Your task to perform on an android device: Open Chrome and go to settings Image 0: 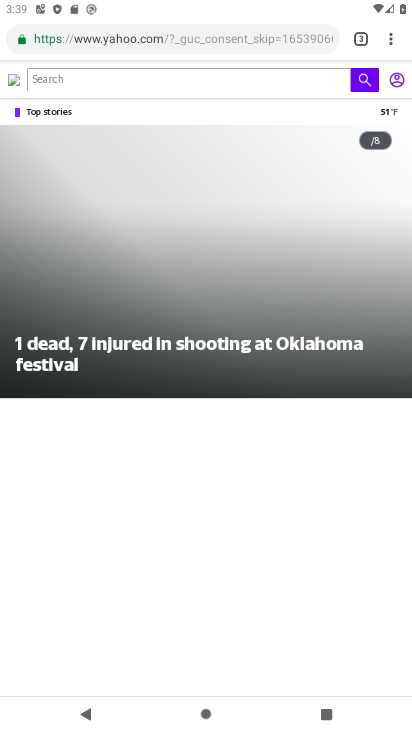
Step 0: press home button
Your task to perform on an android device: Open Chrome and go to settings Image 1: 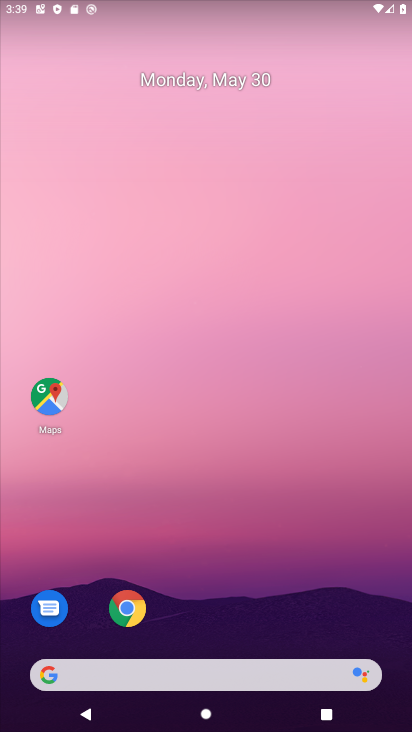
Step 1: click (127, 599)
Your task to perform on an android device: Open Chrome and go to settings Image 2: 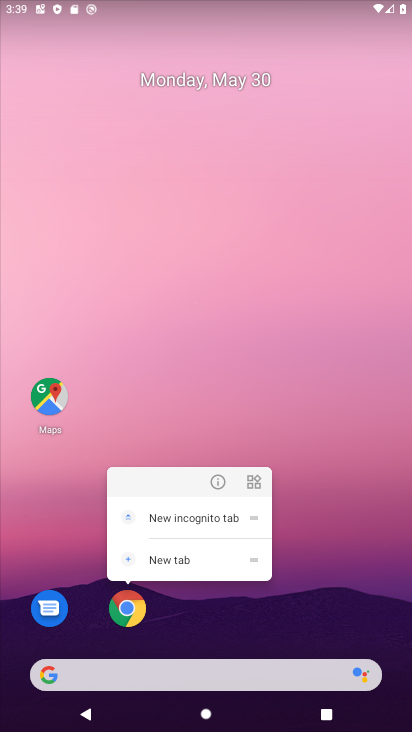
Step 2: click (132, 637)
Your task to perform on an android device: Open Chrome and go to settings Image 3: 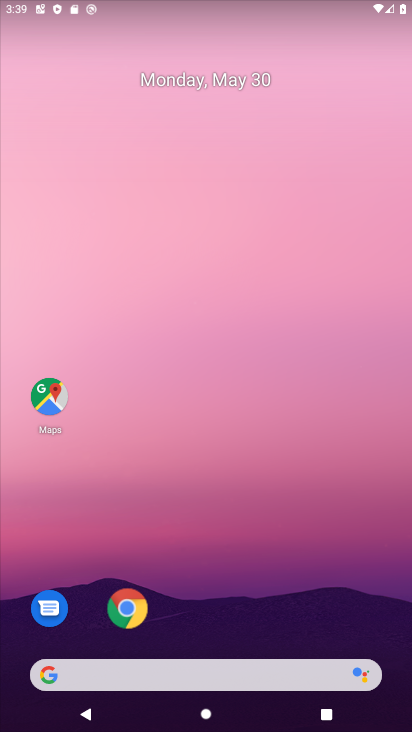
Step 3: click (115, 611)
Your task to perform on an android device: Open Chrome and go to settings Image 4: 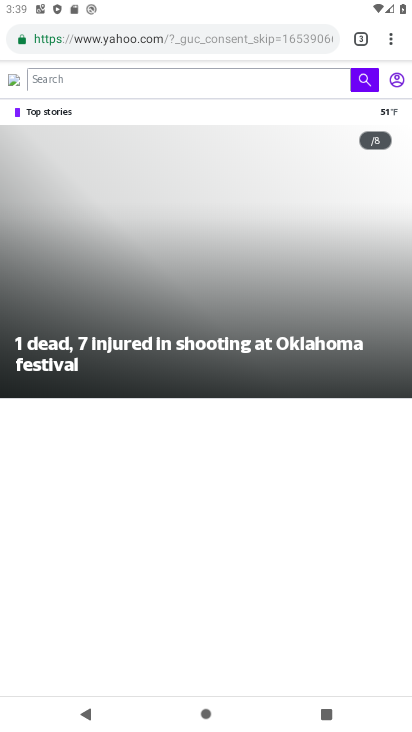
Step 4: click (395, 34)
Your task to perform on an android device: Open Chrome and go to settings Image 5: 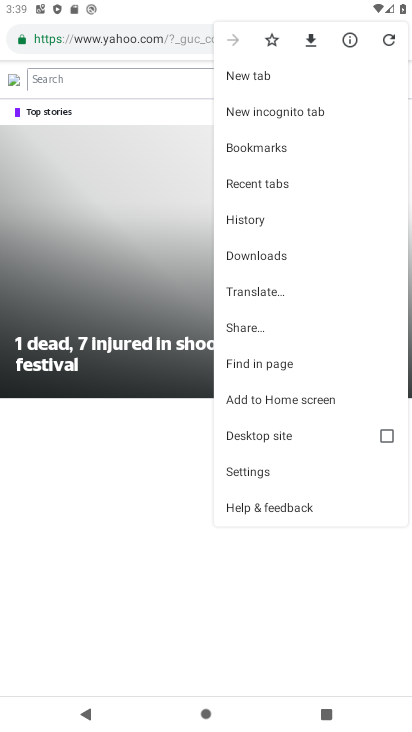
Step 5: click (261, 470)
Your task to perform on an android device: Open Chrome and go to settings Image 6: 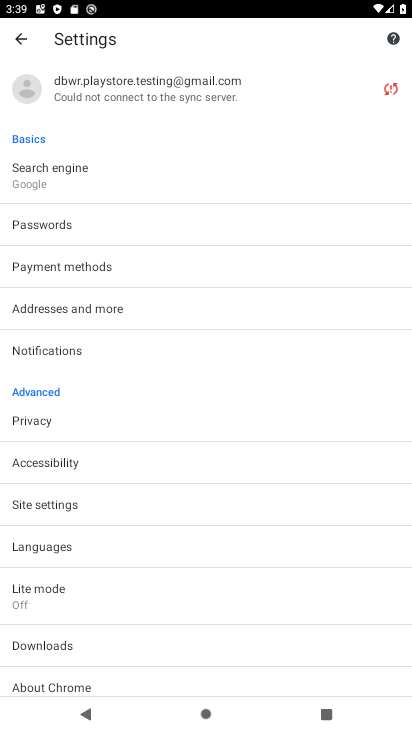
Step 6: task complete